Your task to perform on an android device: turn notification dots on Image 0: 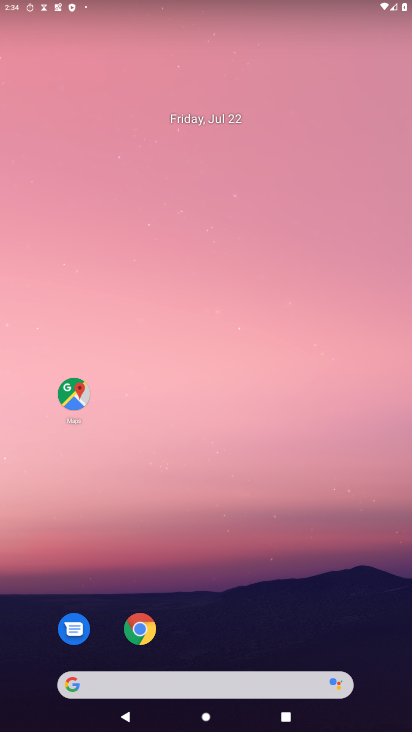
Step 0: drag from (134, 700) to (286, 165)
Your task to perform on an android device: turn notification dots on Image 1: 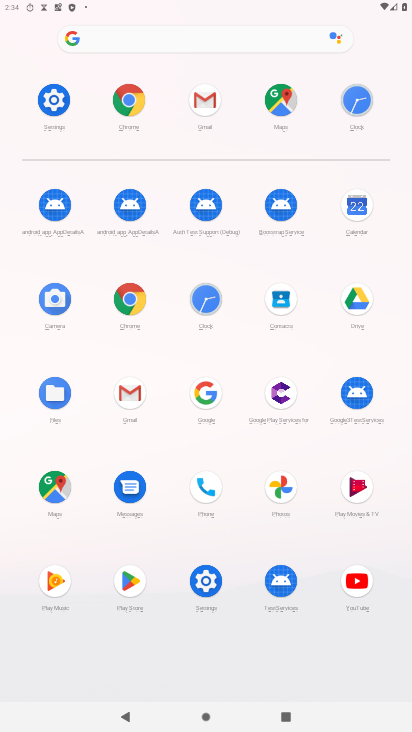
Step 1: click (37, 89)
Your task to perform on an android device: turn notification dots on Image 2: 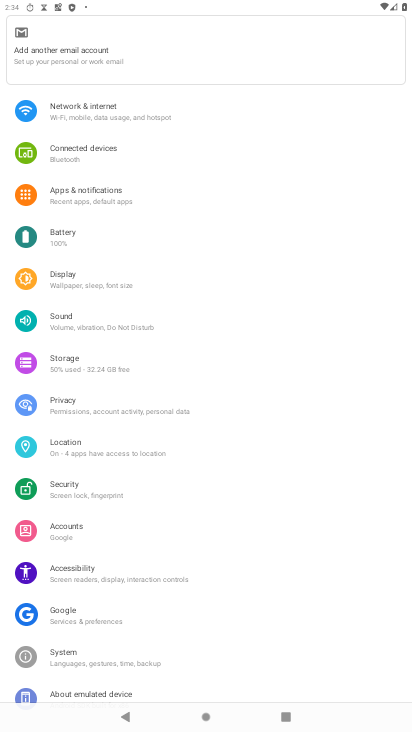
Step 2: click (124, 189)
Your task to perform on an android device: turn notification dots on Image 3: 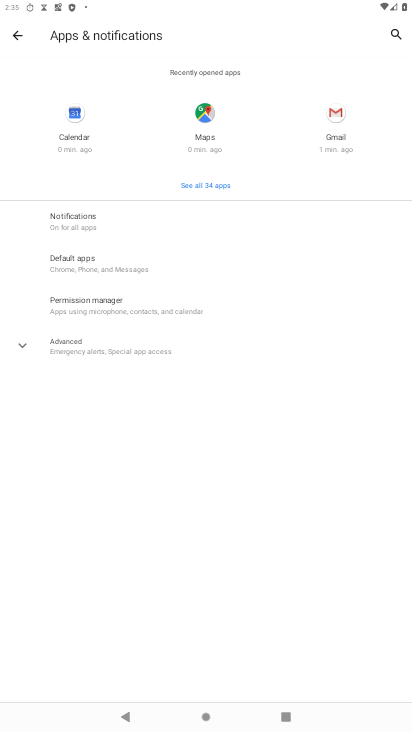
Step 3: click (84, 215)
Your task to perform on an android device: turn notification dots on Image 4: 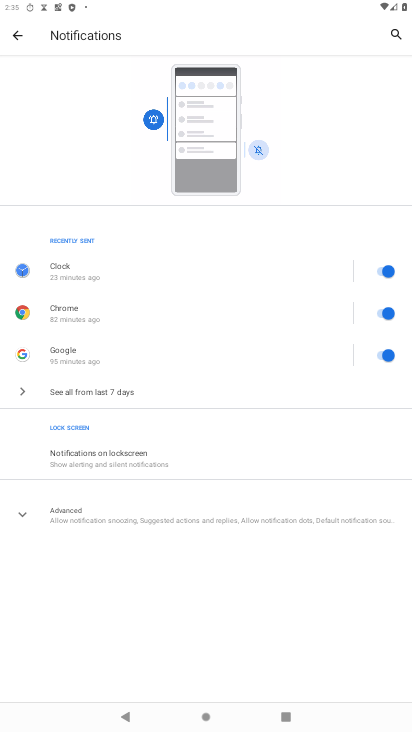
Step 4: click (112, 458)
Your task to perform on an android device: turn notification dots on Image 5: 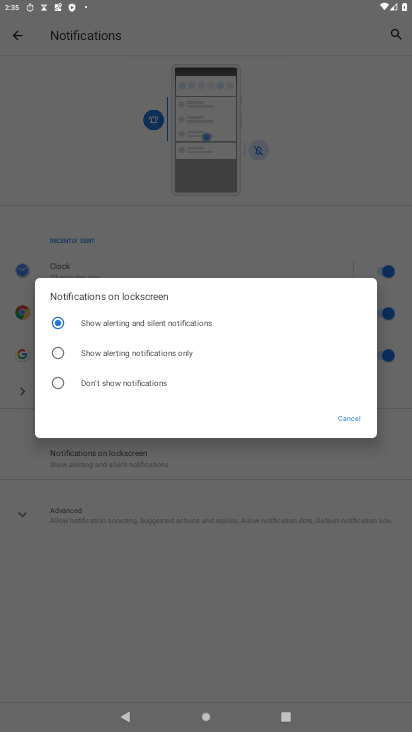
Step 5: click (194, 463)
Your task to perform on an android device: turn notification dots on Image 6: 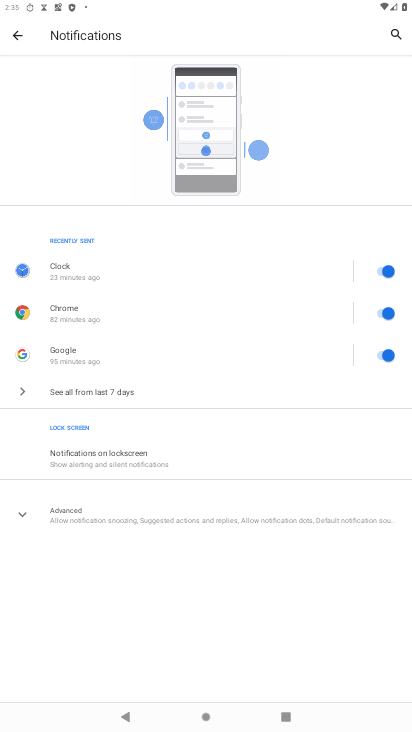
Step 6: click (114, 514)
Your task to perform on an android device: turn notification dots on Image 7: 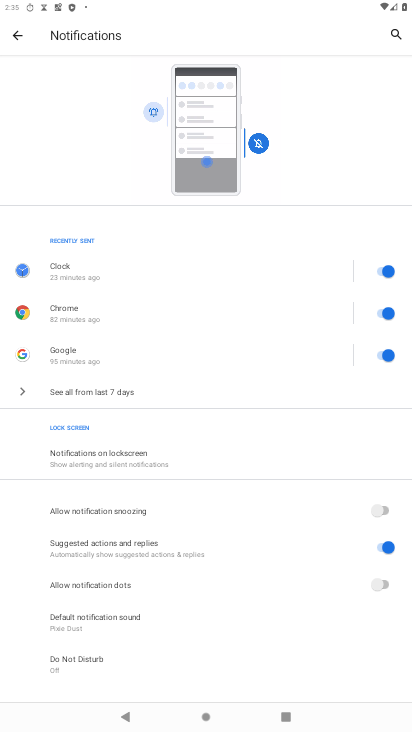
Step 7: click (374, 586)
Your task to perform on an android device: turn notification dots on Image 8: 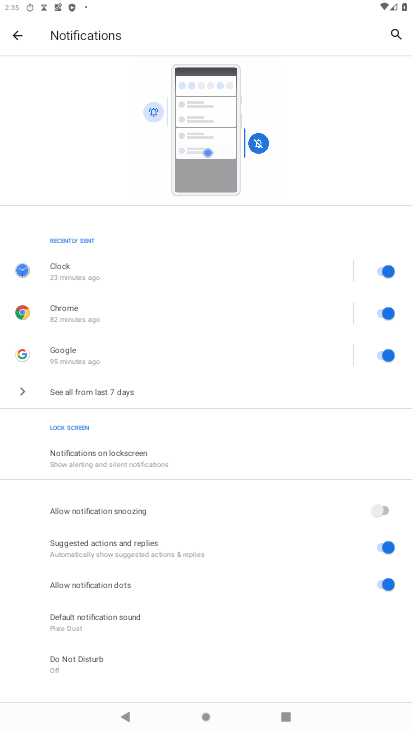
Step 8: task complete